Your task to perform on an android device: change the clock display to analog Image 0: 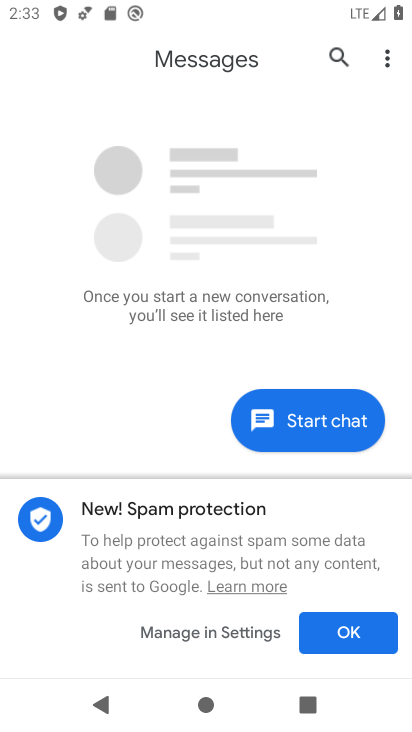
Step 0: press home button
Your task to perform on an android device: change the clock display to analog Image 1: 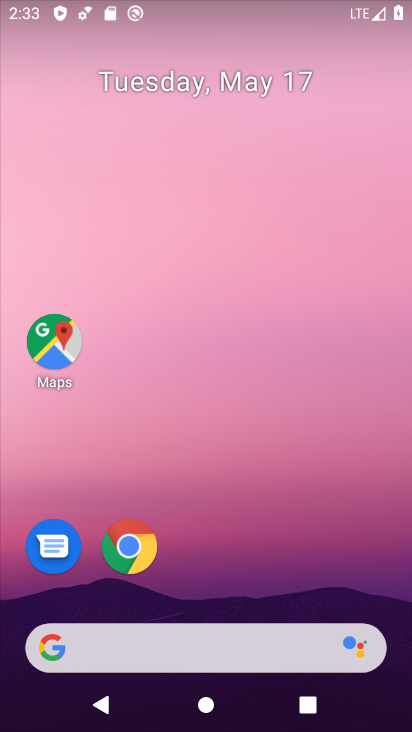
Step 1: click (287, 52)
Your task to perform on an android device: change the clock display to analog Image 2: 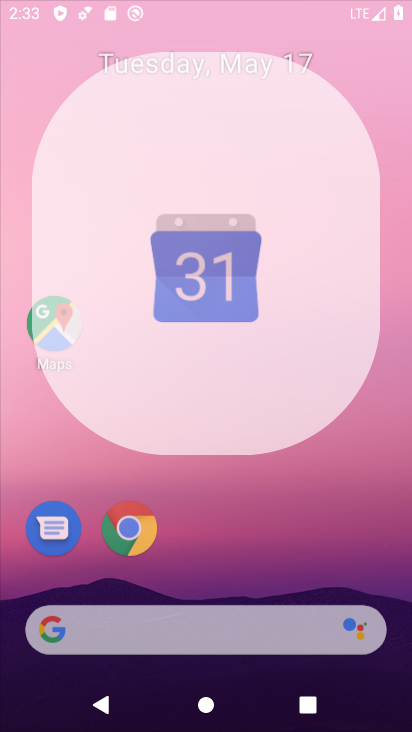
Step 2: drag from (326, 600) to (322, 62)
Your task to perform on an android device: change the clock display to analog Image 3: 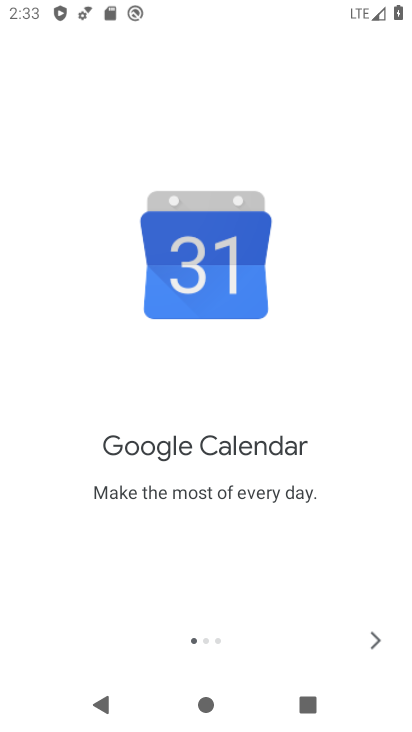
Step 3: click (207, 705)
Your task to perform on an android device: change the clock display to analog Image 4: 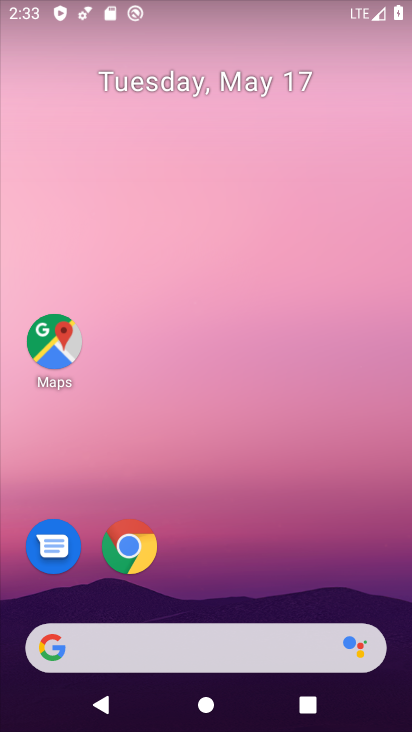
Step 4: drag from (312, 578) to (346, 42)
Your task to perform on an android device: change the clock display to analog Image 5: 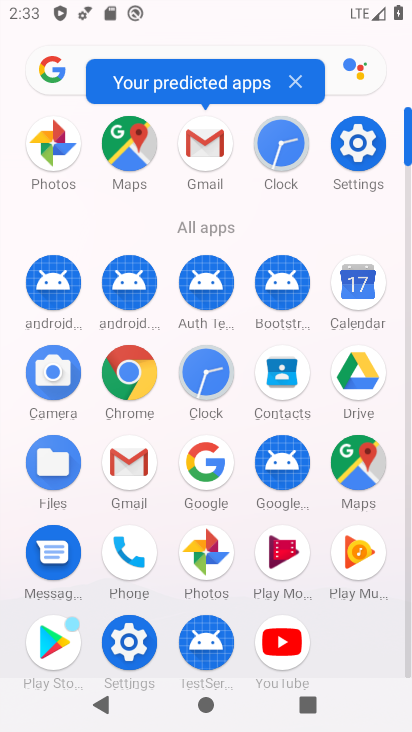
Step 5: click (296, 142)
Your task to perform on an android device: change the clock display to analog Image 6: 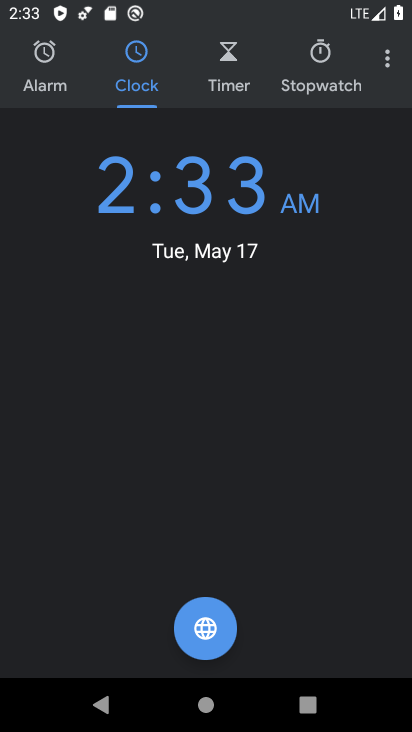
Step 6: click (378, 56)
Your task to perform on an android device: change the clock display to analog Image 7: 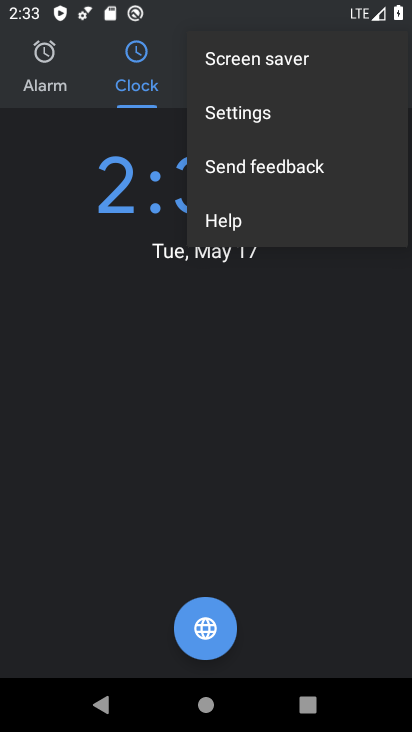
Step 7: click (256, 114)
Your task to perform on an android device: change the clock display to analog Image 8: 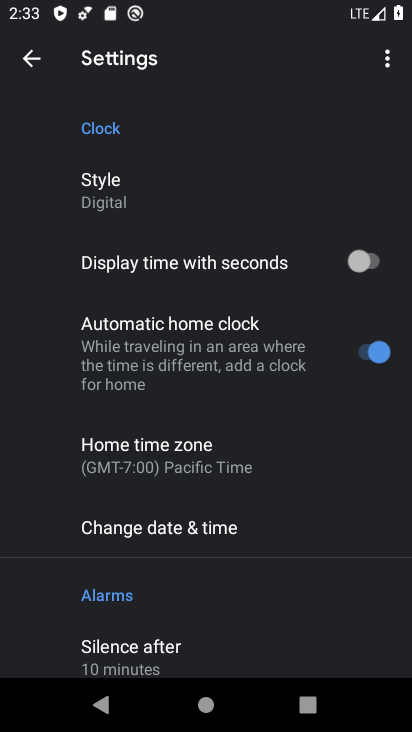
Step 8: click (117, 184)
Your task to perform on an android device: change the clock display to analog Image 9: 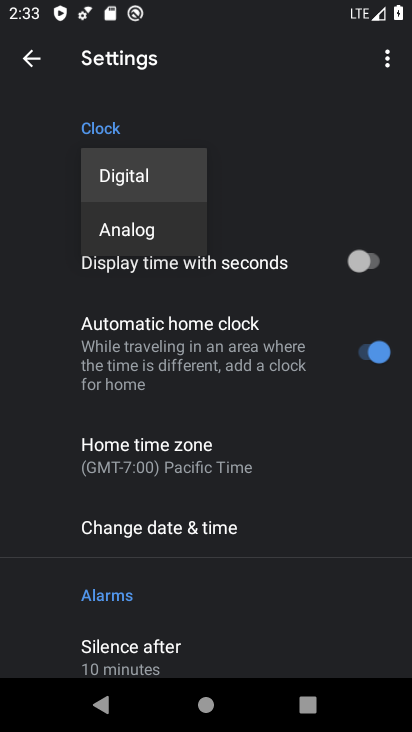
Step 9: click (128, 218)
Your task to perform on an android device: change the clock display to analog Image 10: 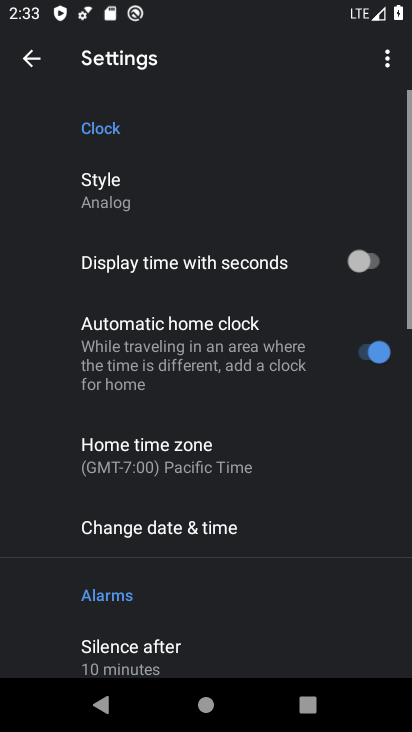
Step 10: task complete